Your task to perform on an android device: see sites visited before in the chrome app Image 0: 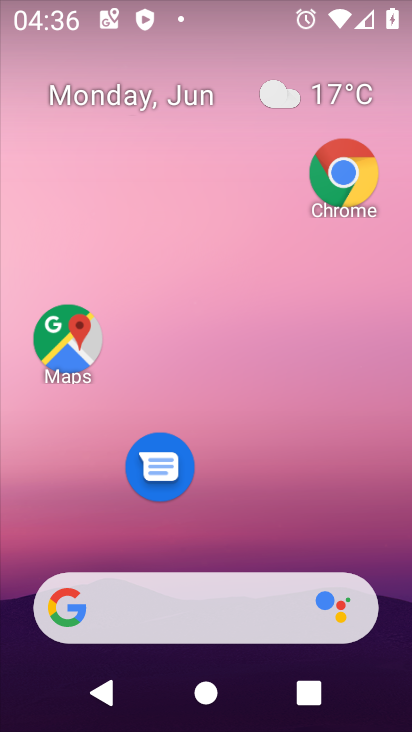
Step 0: click (356, 177)
Your task to perform on an android device: see sites visited before in the chrome app Image 1: 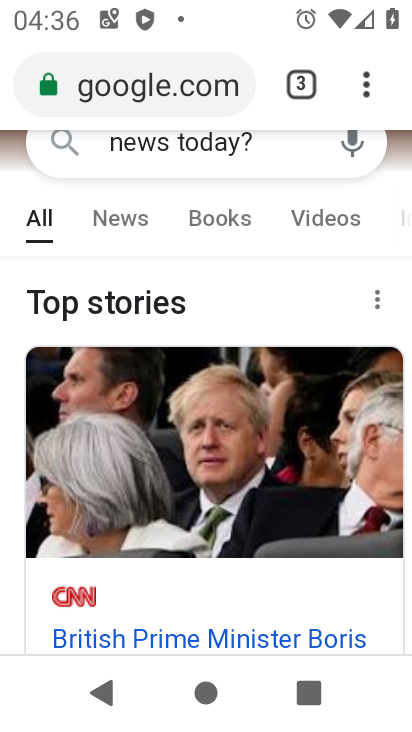
Step 1: click (363, 90)
Your task to perform on an android device: see sites visited before in the chrome app Image 2: 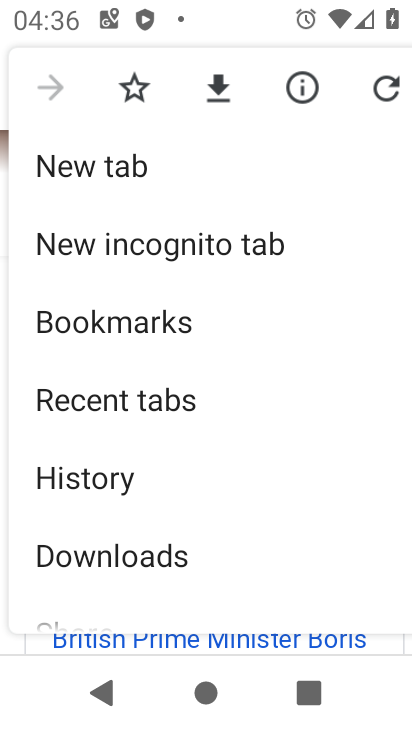
Step 2: click (102, 474)
Your task to perform on an android device: see sites visited before in the chrome app Image 3: 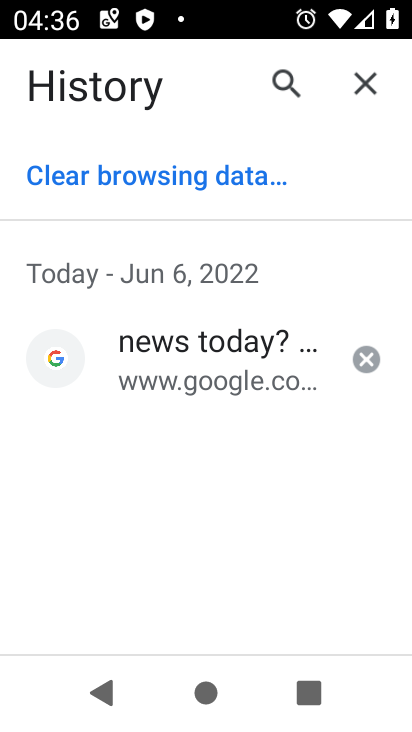
Step 3: task complete